Your task to perform on an android device: Open calendar and show me the third week of next month Image 0: 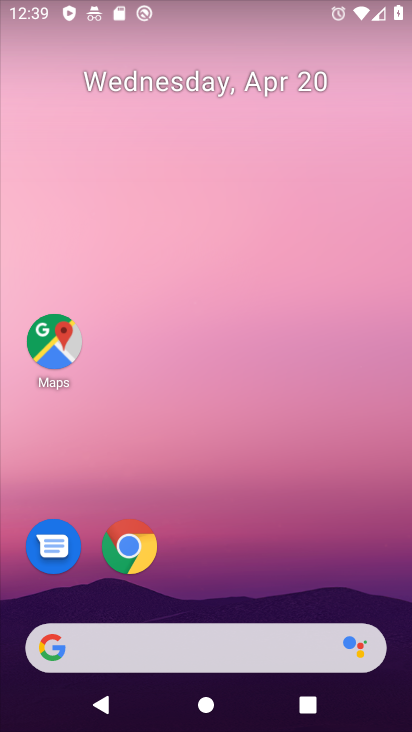
Step 0: drag from (238, 4) to (176, 7)
Your task to perform on an android device: Open calendar and show me the third week of next month Image 1: 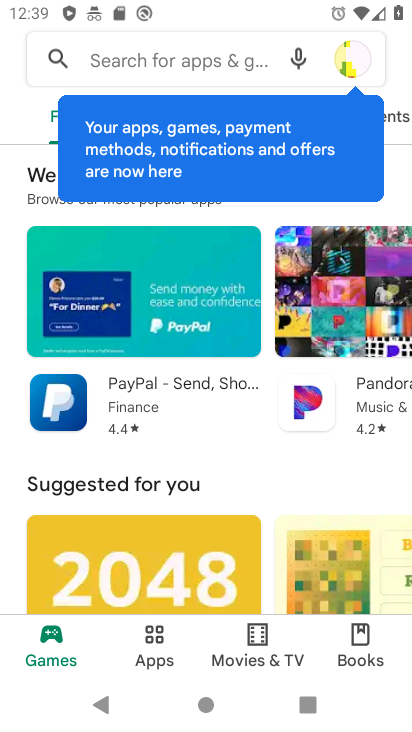
Step 1: press home button
Your task to perform on an android device: Open calendar and show me the third week of next month Image 2: 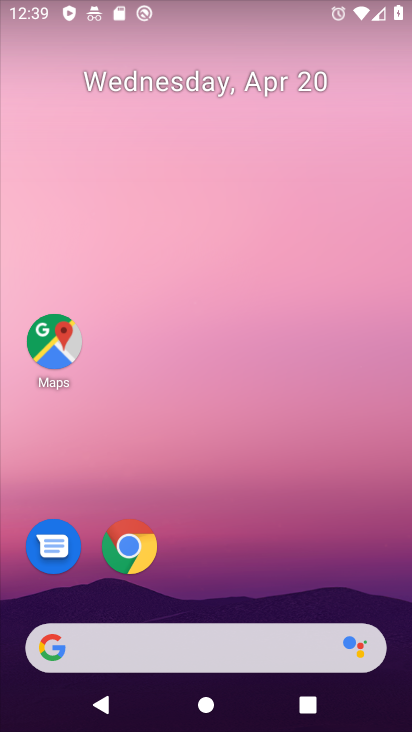
Step 2: drag from (240, 702) to (232, 4)
Your task to perform on an android device: Open calendar and show me the third week of next month Image 3: 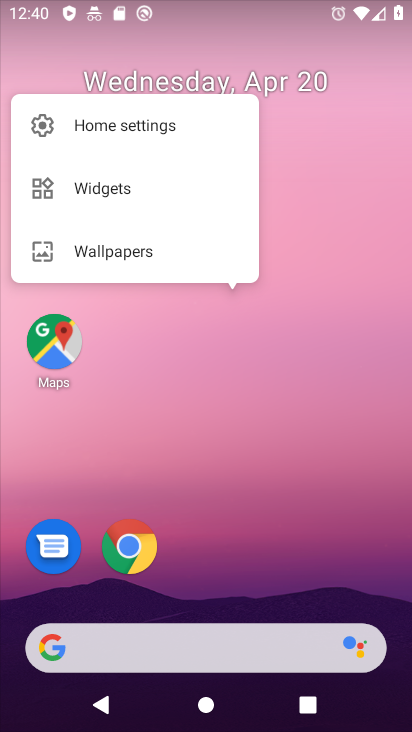
Step 3: drag from (243, 666) to (276, 49)
Your task to perform on an android device: Open calendar and show me the third week of next month Image 4: 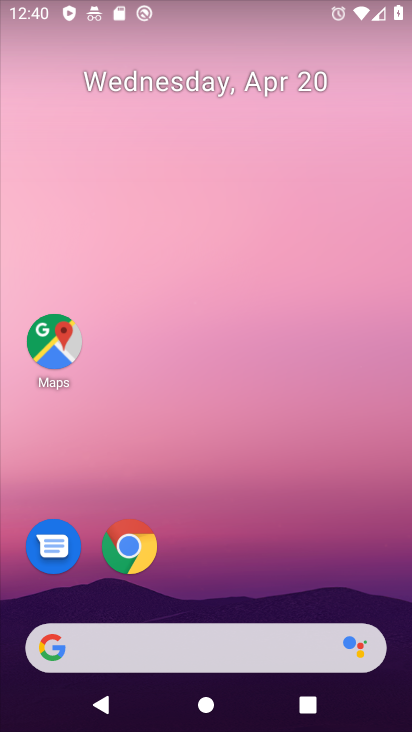
Step 4: drag from (241, 684) to (295, 108)
Your task to perform on an android device: Open calendar and show me the third week of next month Image 5: 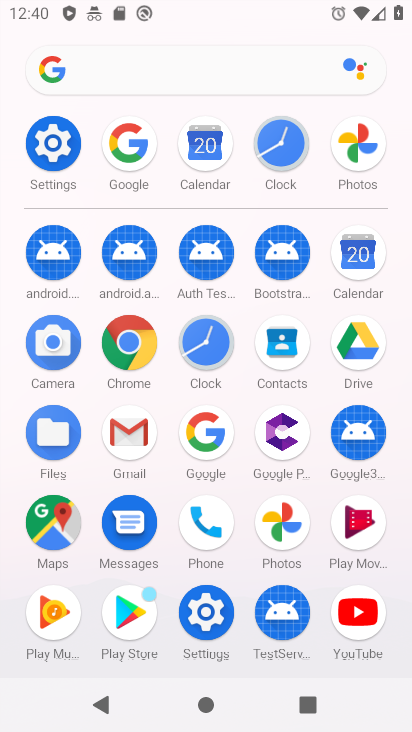
Step 5: click (358, 274)
Your task to perform on an android device: Open calendar and show me the third week of next month Image 6: 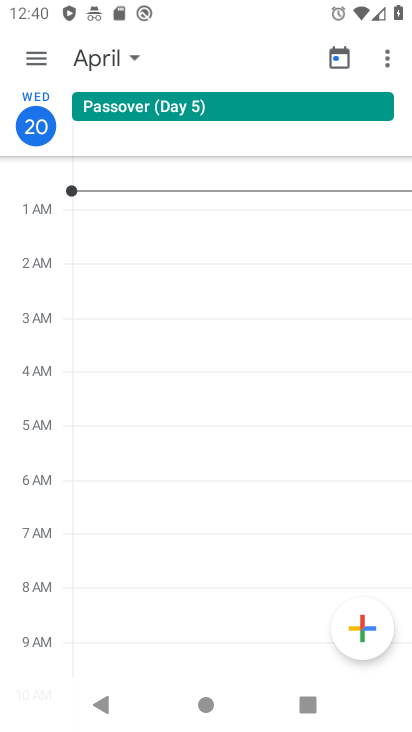
Step 6: click (114, 54)
Your task to perform on an android device: Open calendar and show me the third week of next month Image 7: 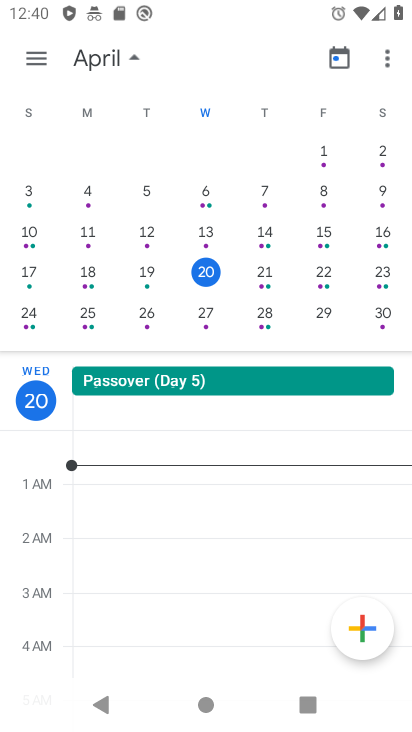
Step 7: drag from (350, 217) to (0, 204)
Your task to perform on an android device: Open calendar and show me the third week of next month Image 8: 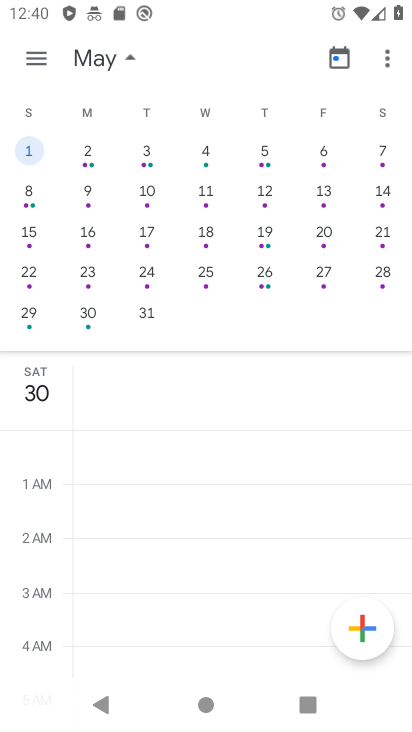
Step 8: drag from (374, 203) to (21, 219)
Your task to perform on an android device: Open calendar and show me the third week of next month Image 9: 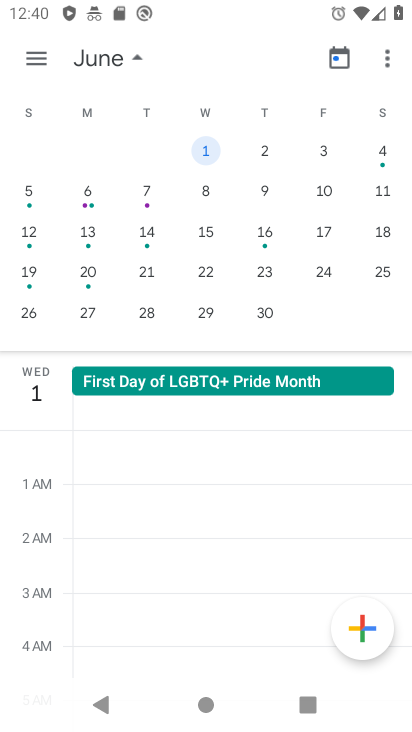
Step 9: drag from (170, 214) to (373, 196)
Your task to perform on an android device: Open calendar and show me the third week of next month Image 10: 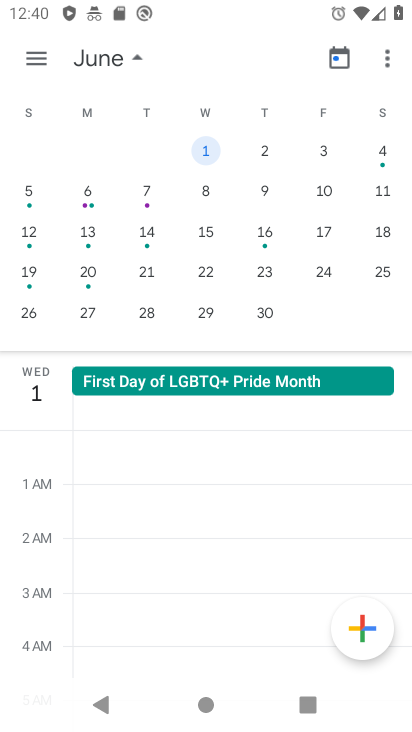
Step 10: drag from (71, 148) to (395, 245)
Your task to perform on an android device: Open calendar and show me the third week of next month Image 11: 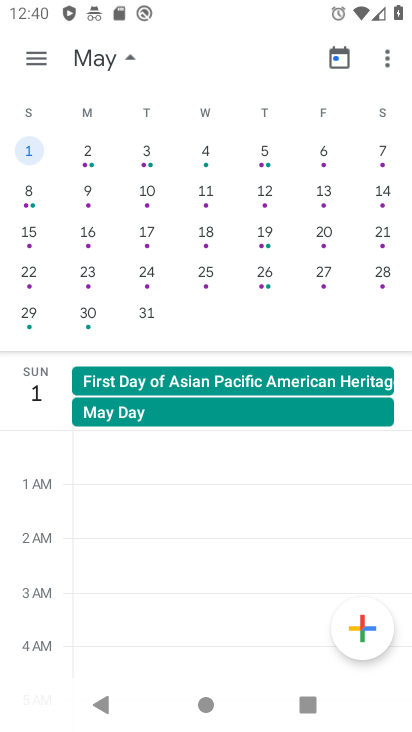
Step 11: click (31, 232)
Your task to perform on an android device: Open calendar and show me the third week of next month Image 12: 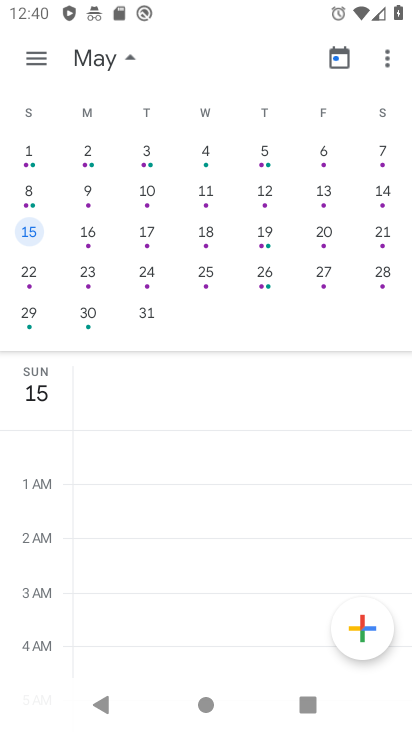
Step 12: task complete